Your task to perform on an android device: Clear all items from cart on newegg. Image 0: 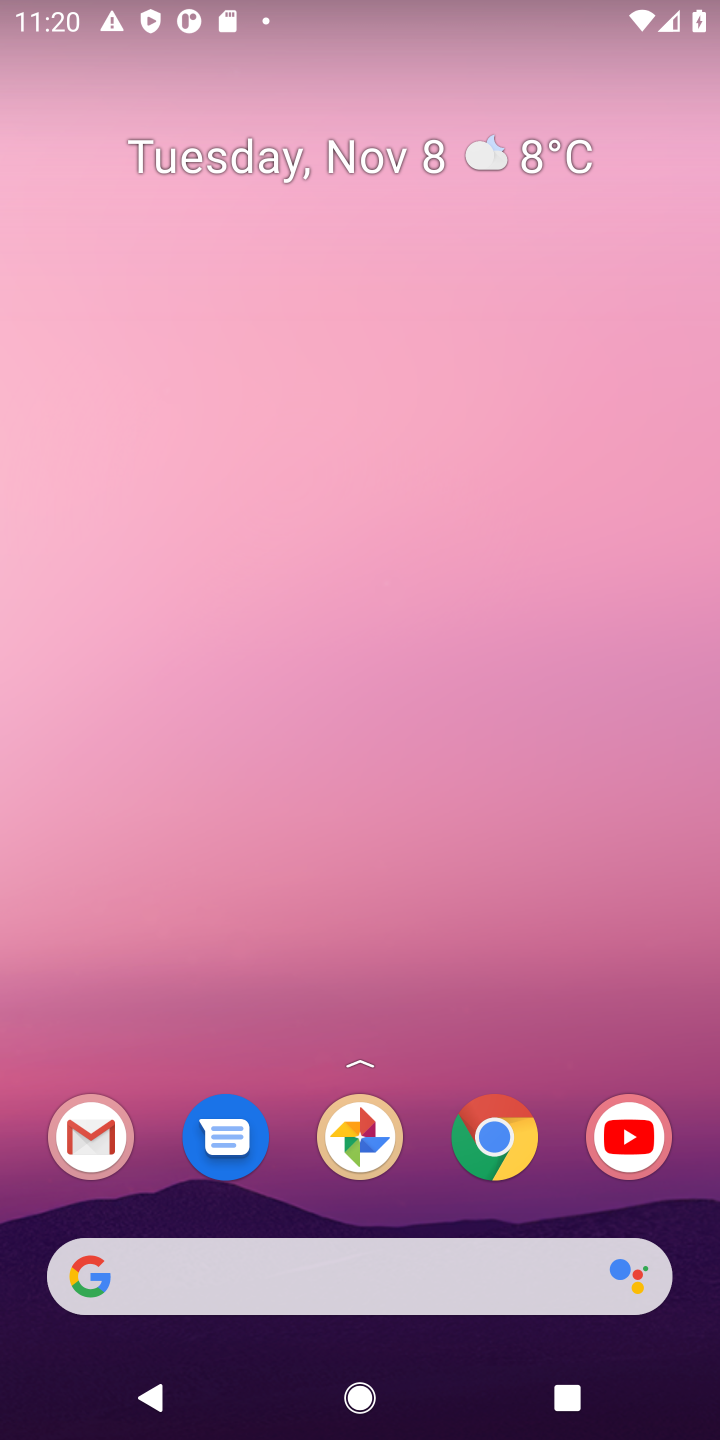
Step 0: click (479, 1127)
Your task to perform on an android device: Clear all items from cart on newegg. Image 1: 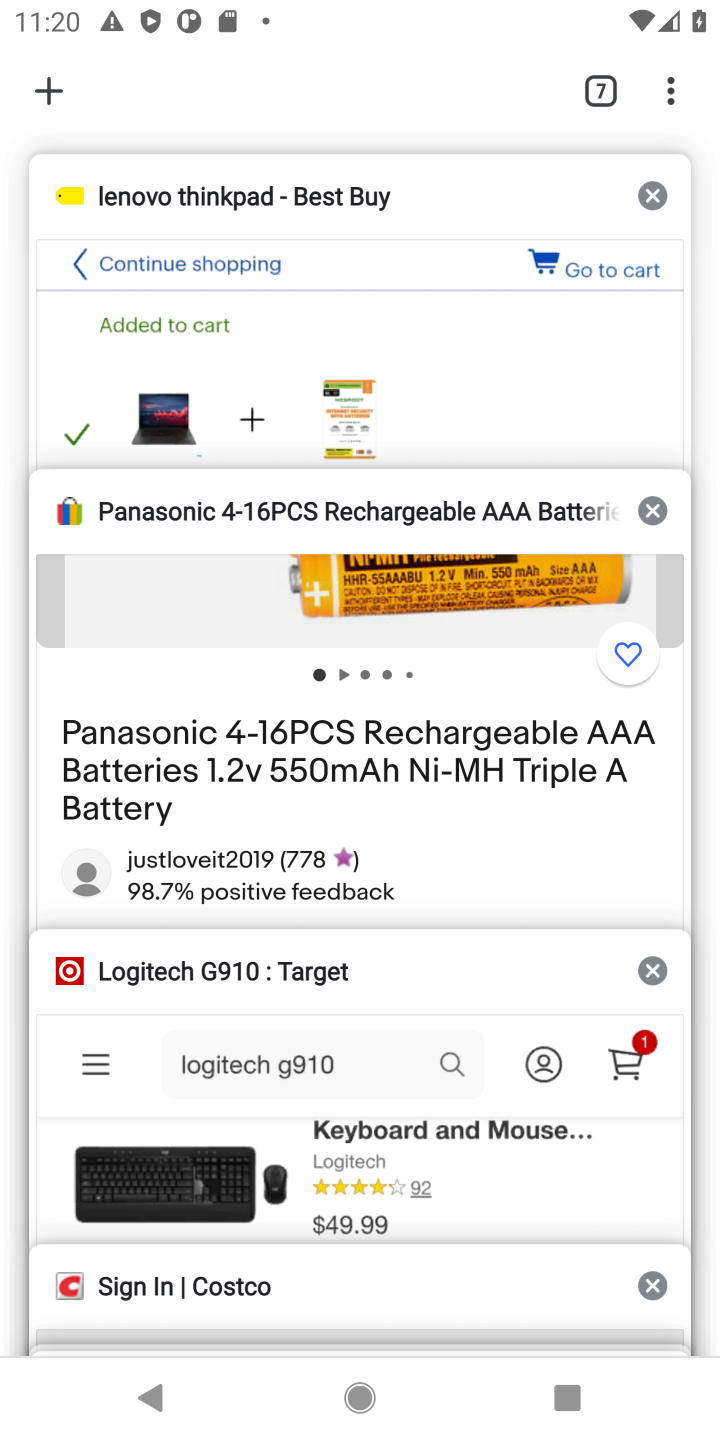
Step 1: click (51, 72)
Your task to perform on an android device: Clear all items from cart on newegg. Image 2: 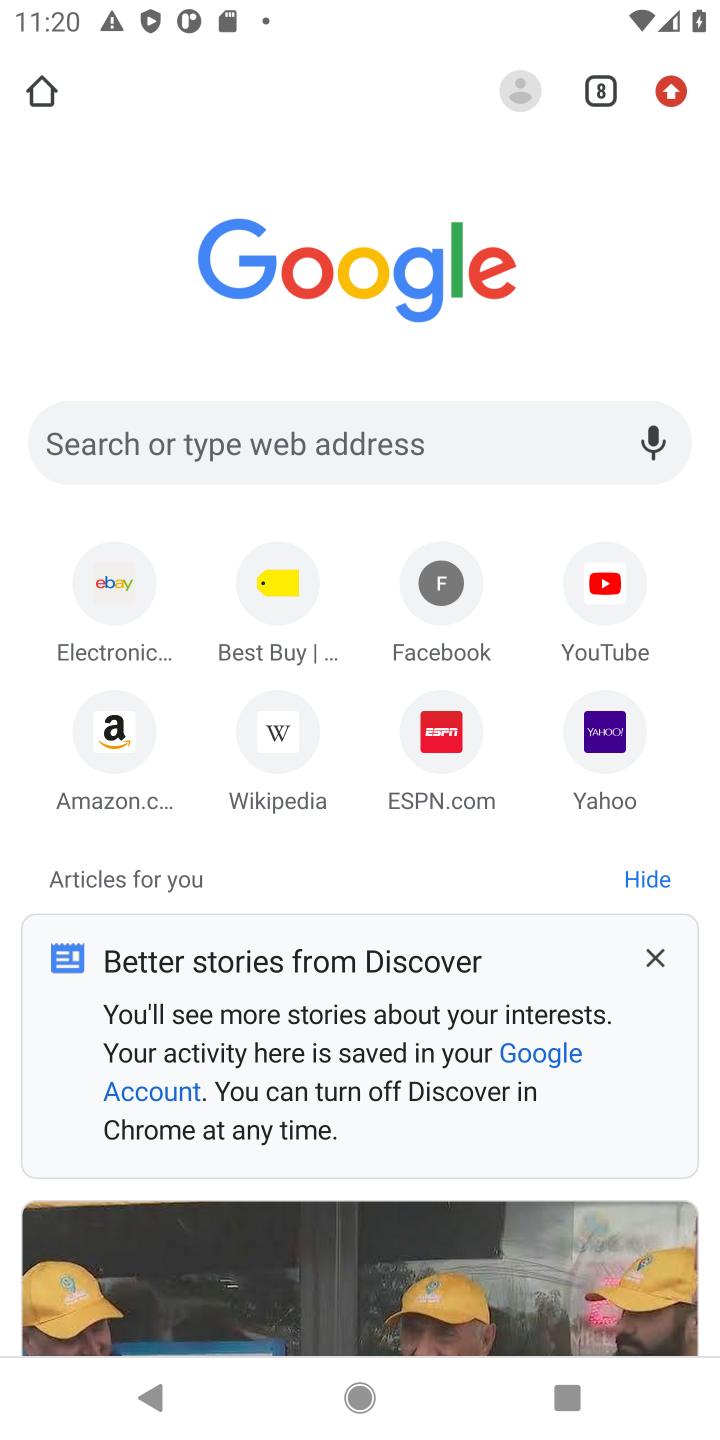
Step 2: click (306, 425)
Your task to perform on an android device: Clear all items from cart on newegg. Image 3: 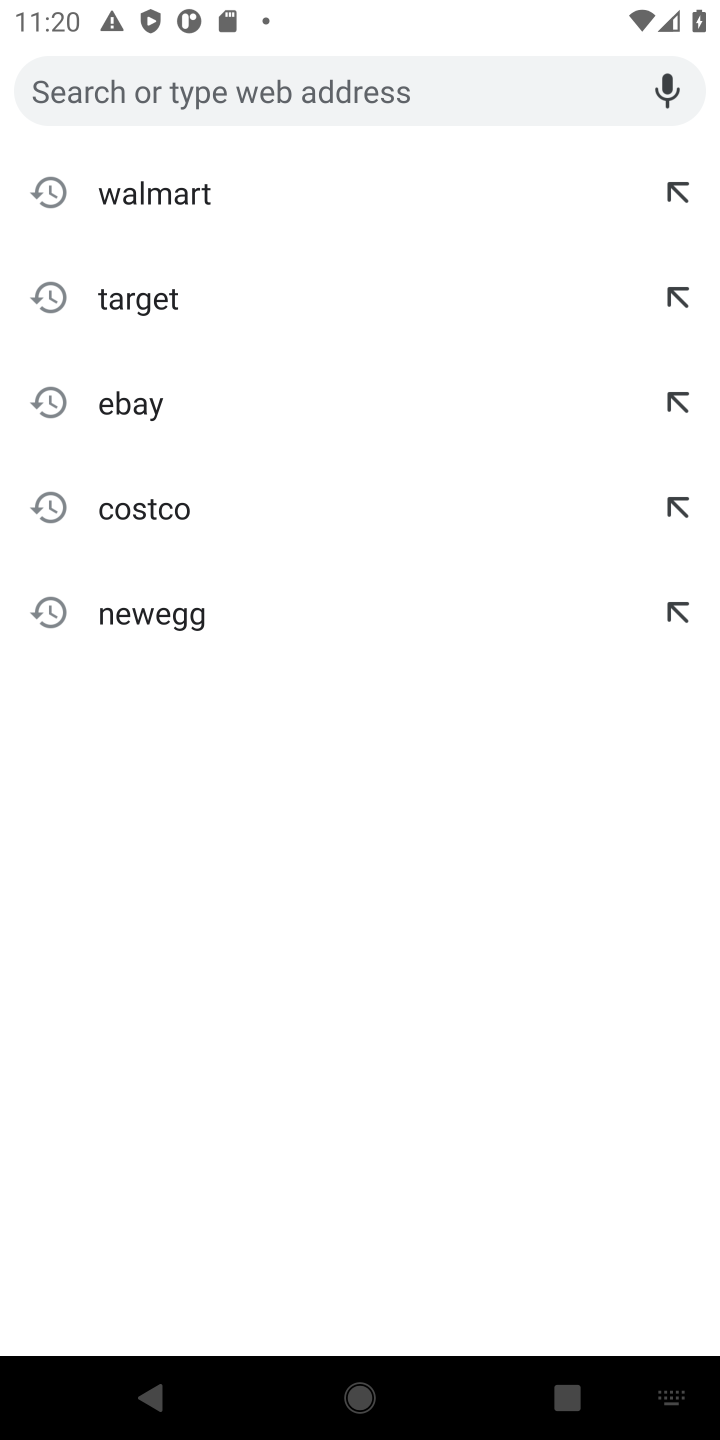
Step 3: click (165, 618)
Your task to perform on an android device: Clear all items from cart on newegg. Image 4: 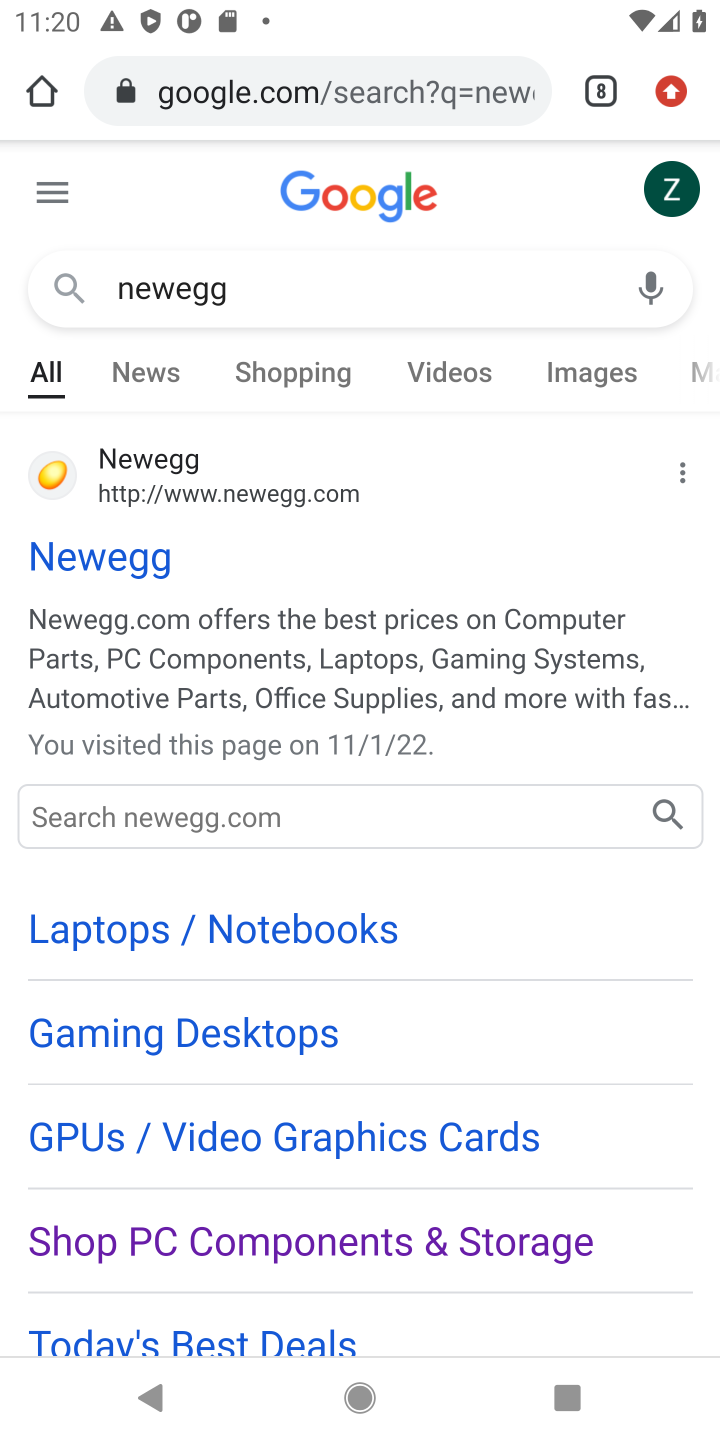
Step 4: click (122, 565)
Your task to perform on an android device: Clear all items from cart on newegg. Image 5: 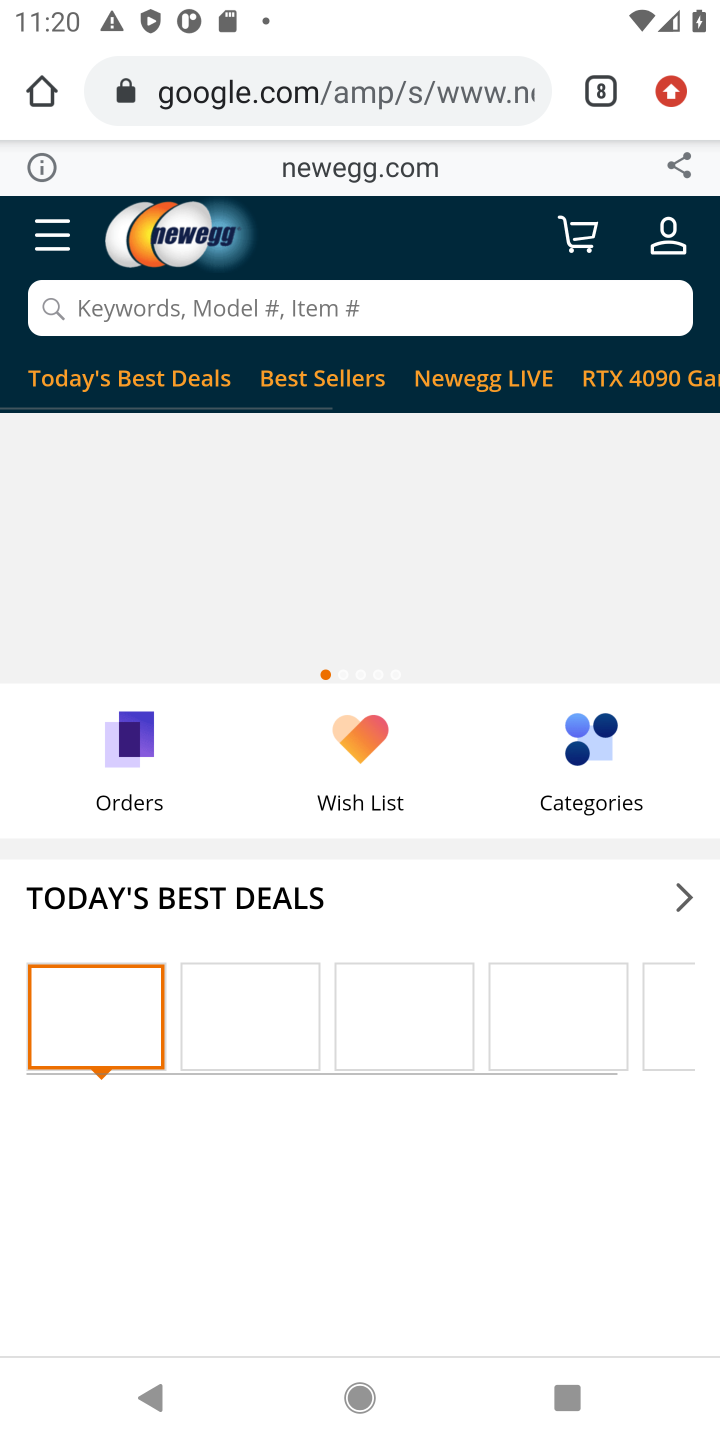
Step 5: task complete